Your task to perform on an android device: turn on location history Image 0: 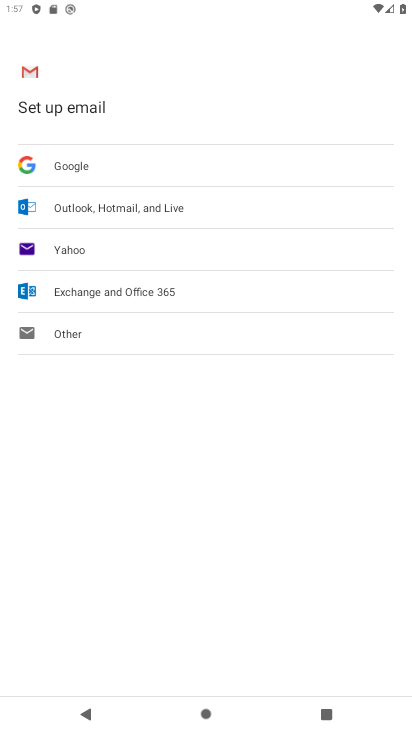
Step 0: press home button
Your task to perform on an android device: turn on location history Image 1: 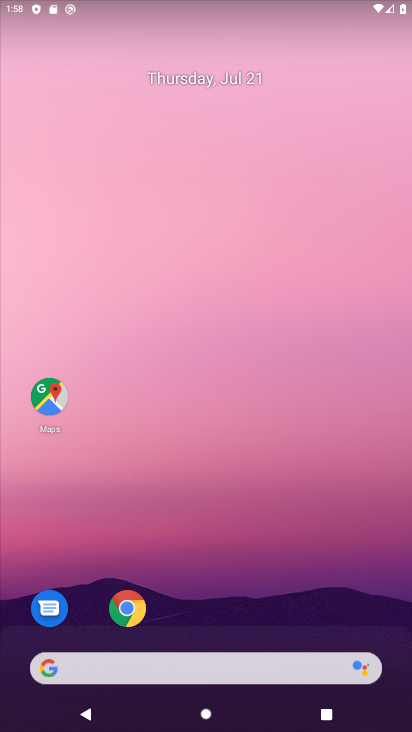
Step 1: click (236, 259)
Your task to perform on an android device: turn on location history Image 2: 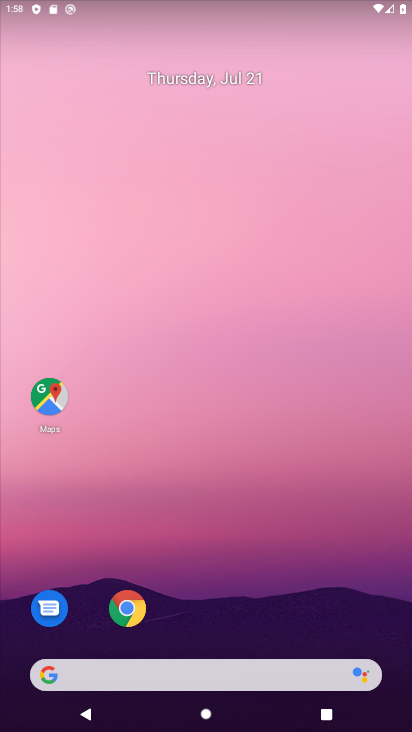
Step 2: drag from (228, 715) to (227, 116)
Your task to perform on an android device: turn on location history Image 3: 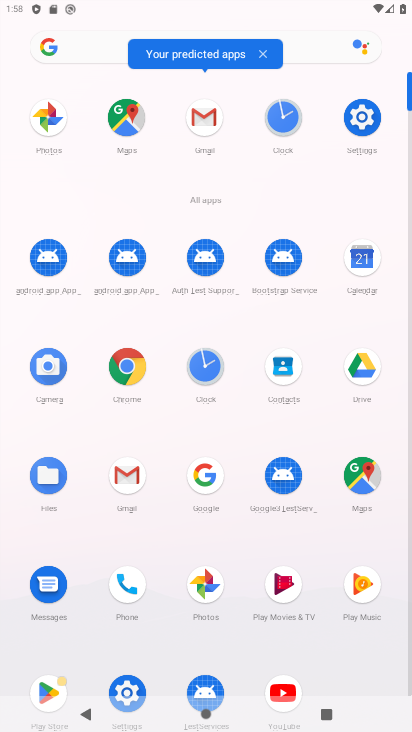
Step 3: click (360, 123)
Your task to perform on an android device: turn on location history Image 4: 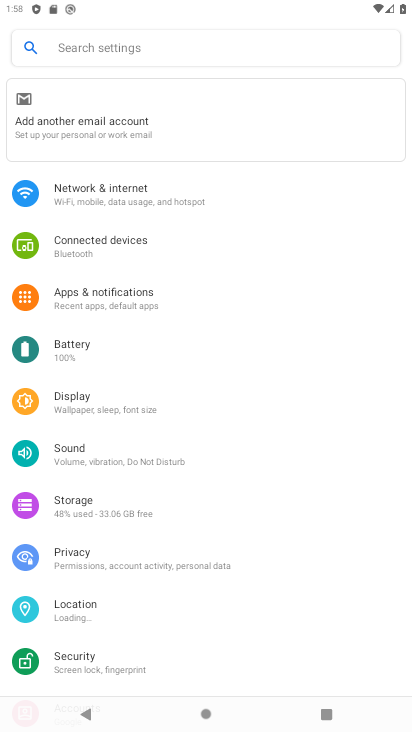
Step 4: click (77, 607)
Your task to perform on an android device: turn on location history Image 5: 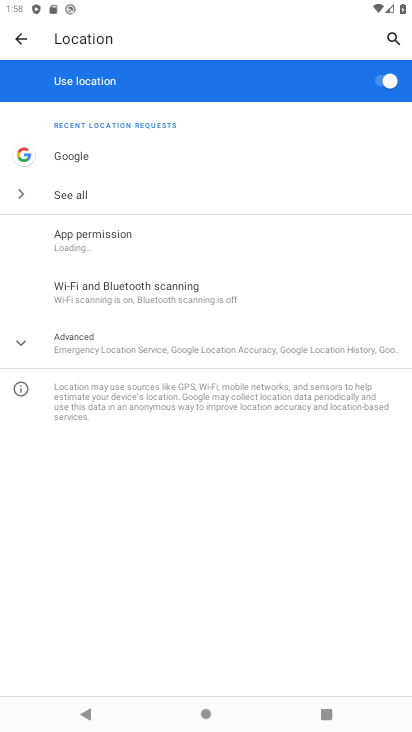
Step 5: click (115, 341)
Your task to perform on an android device: turn on location history Image 6: 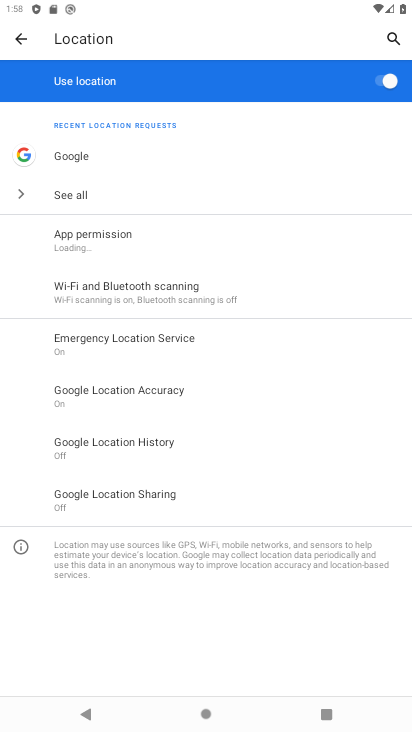
Step 6: click (145, 442)
Your task to perform on an android device: turn on location history Image 7: 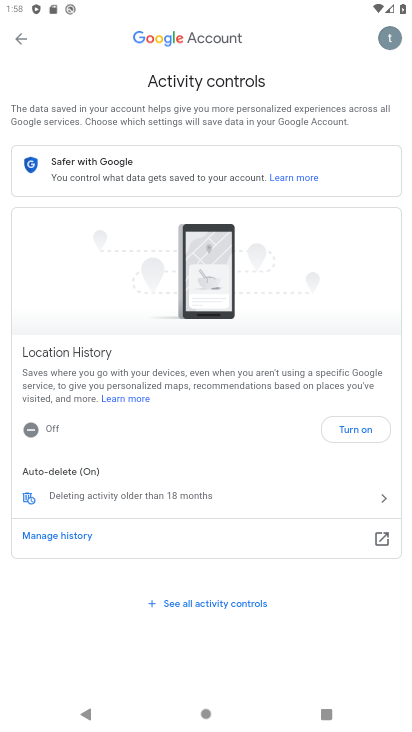
Step 7: click (362, 426)
Your task to perform on an android device: turn on location history Image 8: 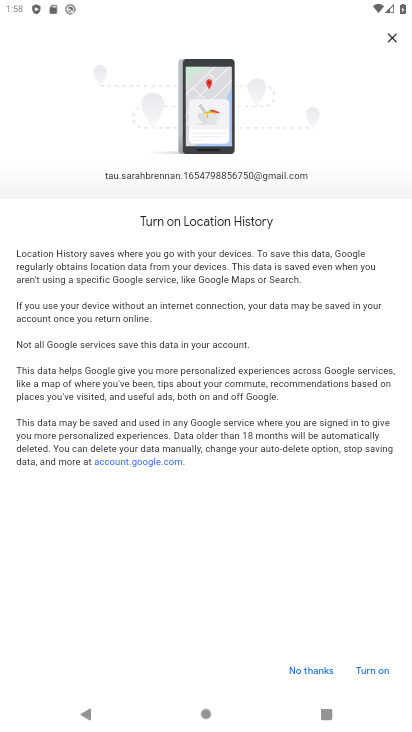
Step 8: click (366, 663)
Your task to perform on an android device: turn on location history Image 9: 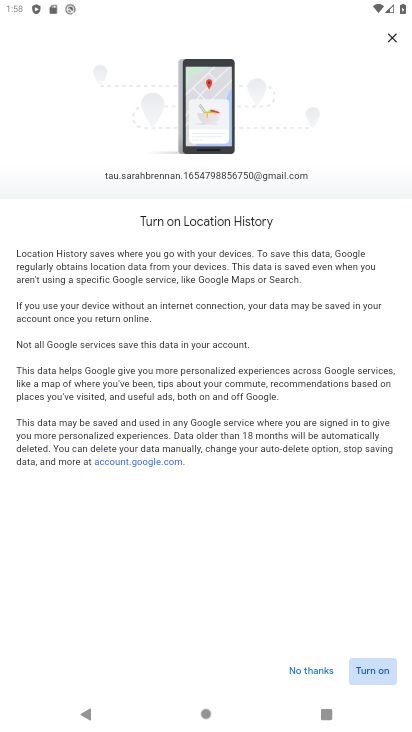
Step 9: click (370, 671)
Your task to perform on an android device: turn on location history Image 10: 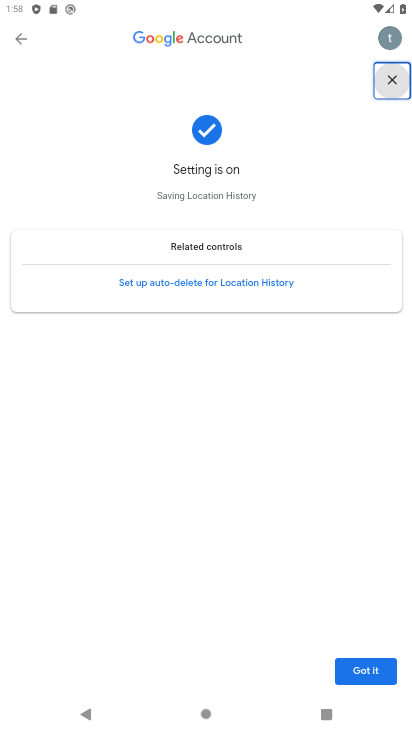
Step 10: click (354, 672)
Your task to perform on an android device: turn on location history Image 11: 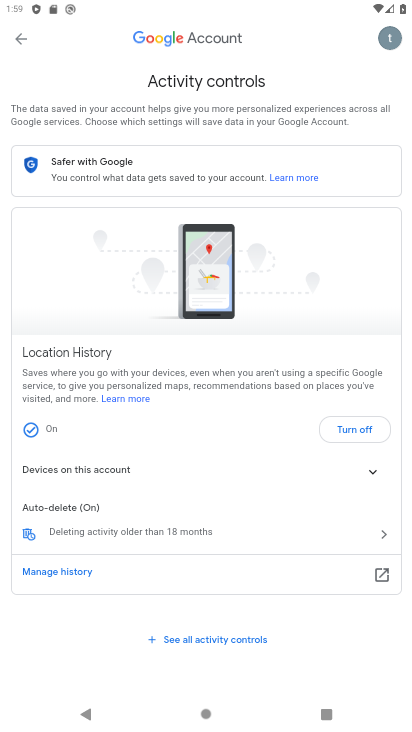
Step 11: task complete